Your task to perform on an android device: Do I have any events today? Image 0: 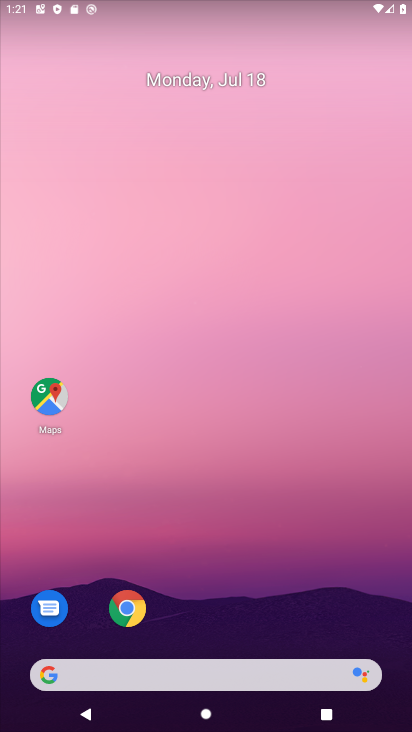
Step 0: drag from (245, 685) to (272, 136)
Your task to perform on an android device: Do I have any events today? Image 1: 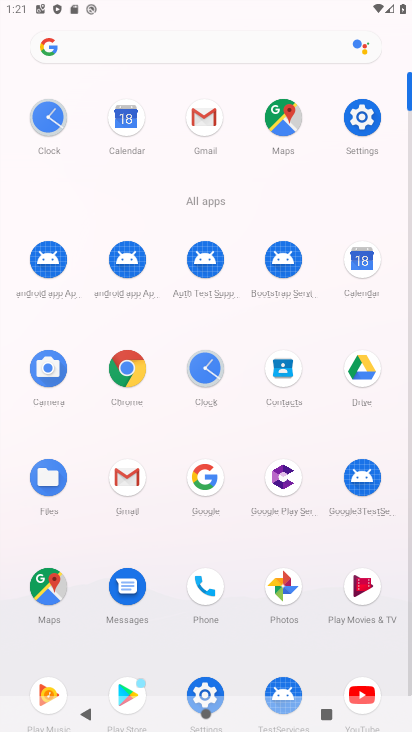
Step 1: click (361, 256)
Your task to perform on an android device: Do I have any events today? Image 2: 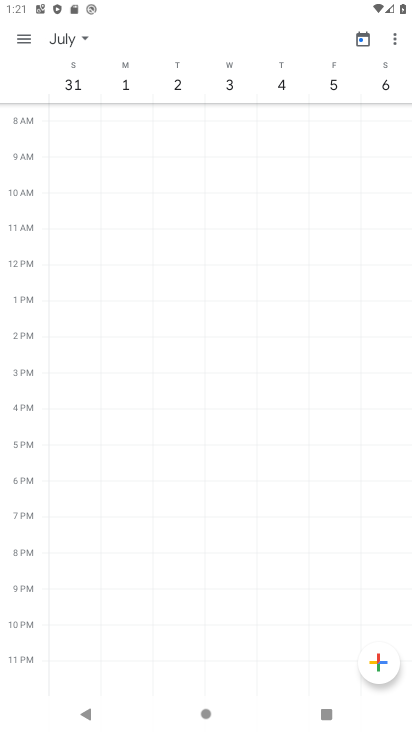
Step 2: click (87, 28)
Your task to perform on an android device: Do I have any events today? Image 3: 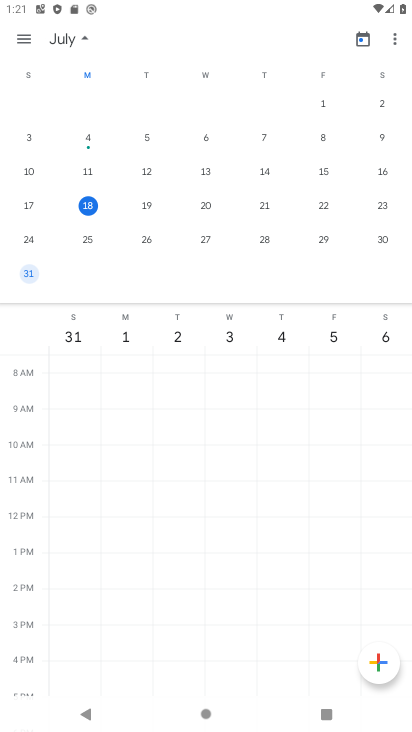
Step 3: click (89, 202)
Your task to perform on an android device: Do I have any events today? Image 4: 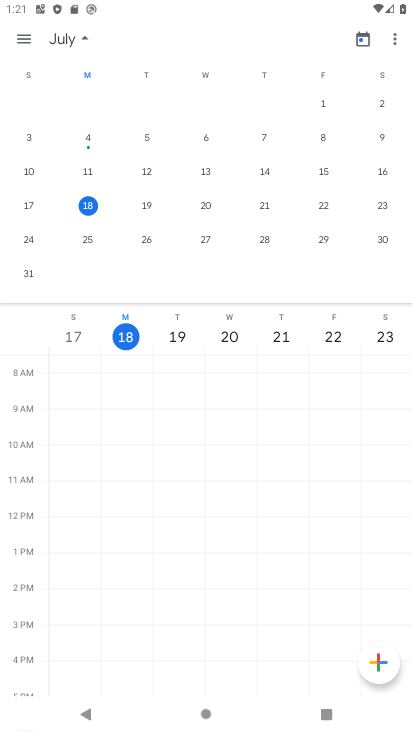
Step 4: click (123, 333)
Your task to perform on an android device: Do I have any events today? Image 5: 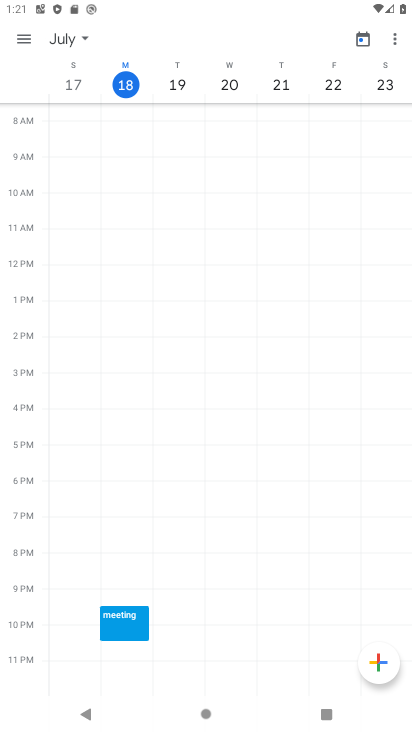
Step 5: task complete